Your task to perform on an android device: turn smart compose on in the gmail app Image 0: 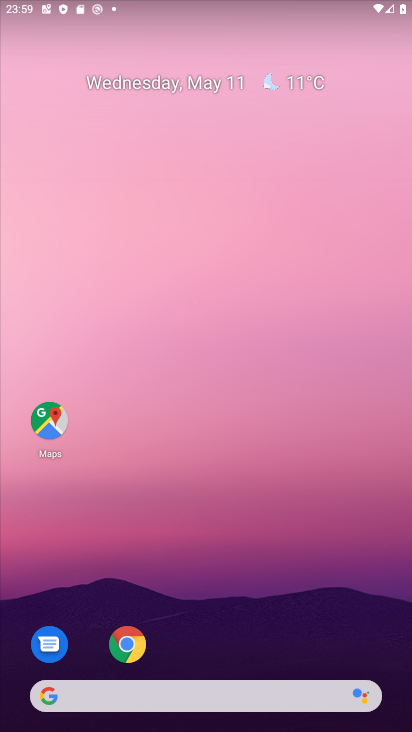
Step 0: press home button
Your task to perform on an android device: turn smart compose on in the gmail app Image 1: 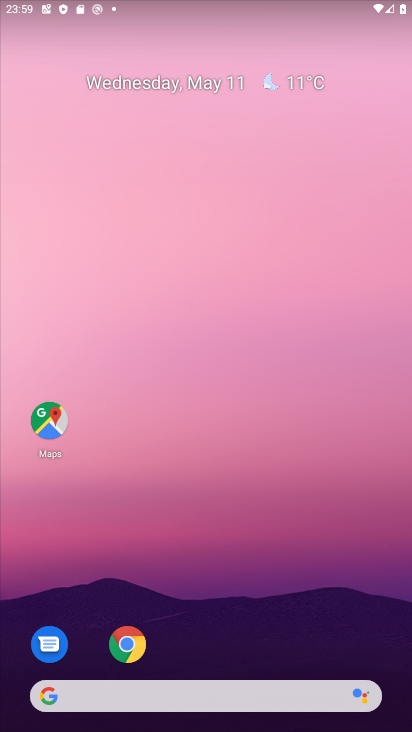
Step 1: drag from (217, 668) to (236, 49)
Your task to perform on an android device: turn smart compose on in the gmail app Image 2: 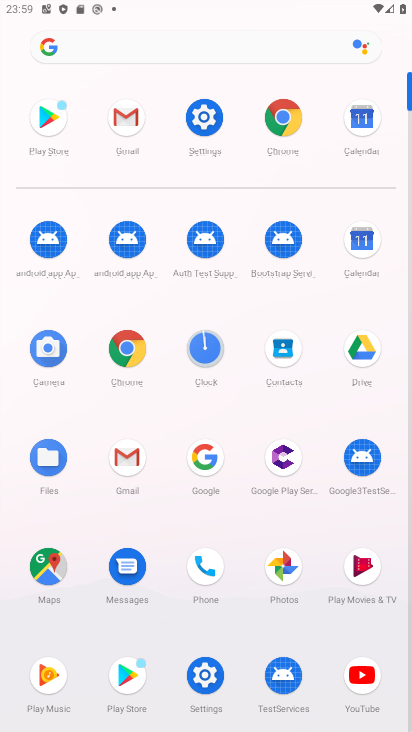
Step 2: click (128, 453)
Your task to perform on an android device: turn smart compose on in the gmail app Image 3: 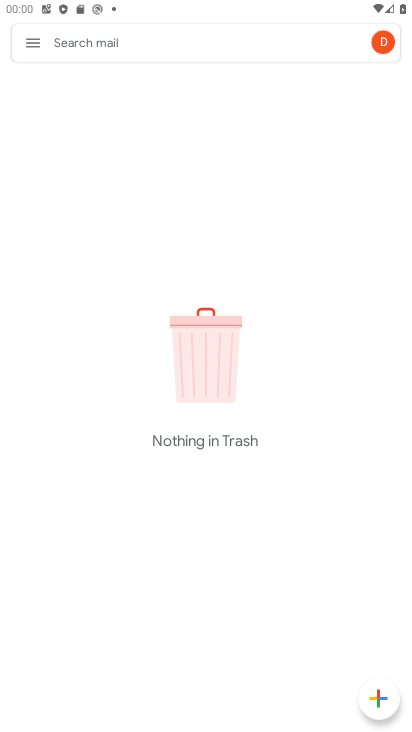
Step 3: click (26, 42)
Your task to perform on an android device: turn smart compose on in the gmail app Image 4: 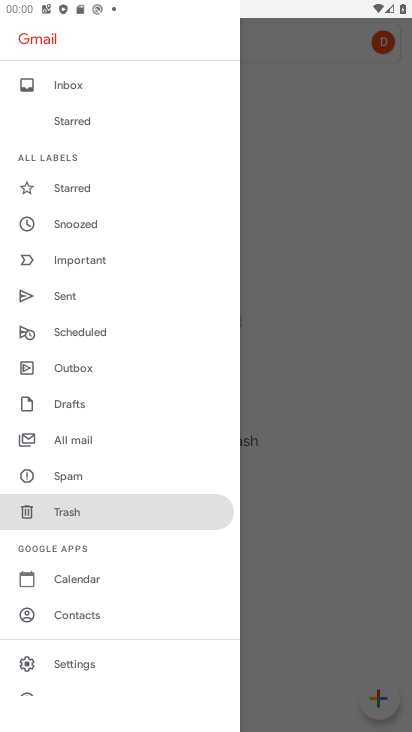
Step 4: click (99, 661)
Your task to perform on an android device: turn smart compose on in the gmail app Image 5: 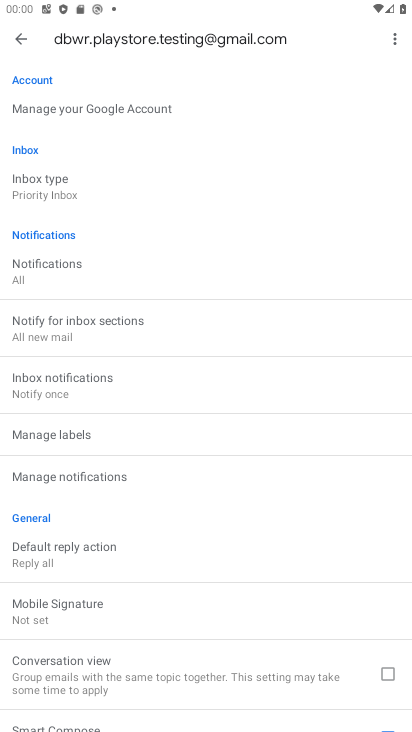
Step 5: task complete